Your task to perform on an android device: What's on my calendar tomorrow? Image 0: 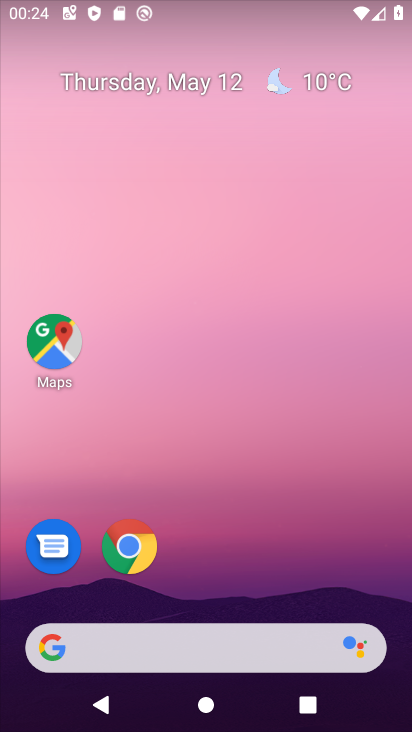
Step 0: drag from (162, 574) to (197, 196)
Your task to perform on an android device: What's on my calendar tomorrow? Image 1: 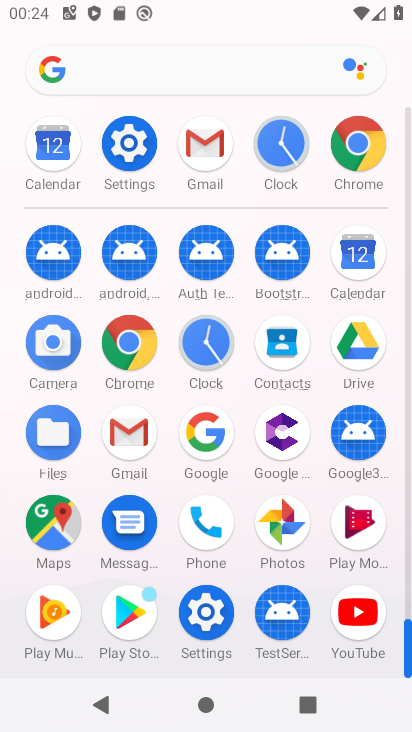
Step 1: click (359, 261)
Your task to perform on an android device: What's on my calendar tomorrow? Image 2: 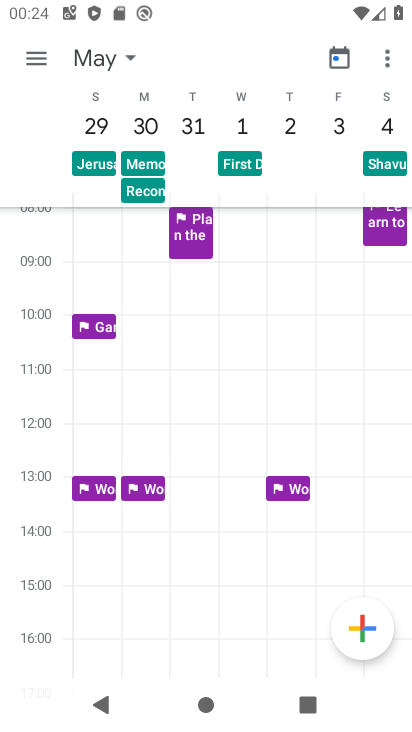
Step 2: click (125, 64)
Your task to perform on an android device: What's on my calendar tomorrow? Image 3: 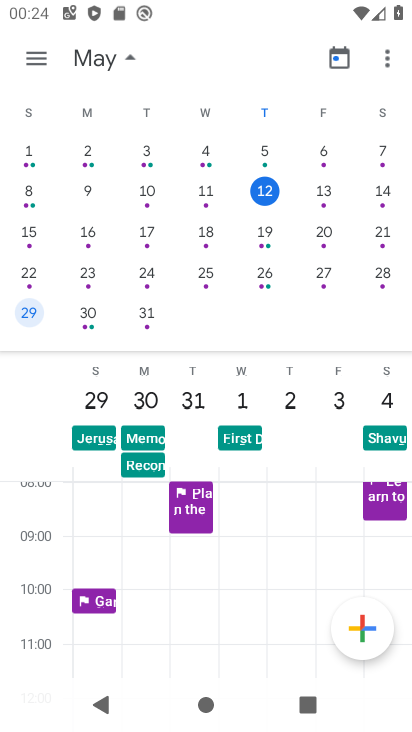
Step 3: drag from (390, 220) to (80, 207)
Your task to perform on an android device: What's on my calendar tomorrow? Image 4: 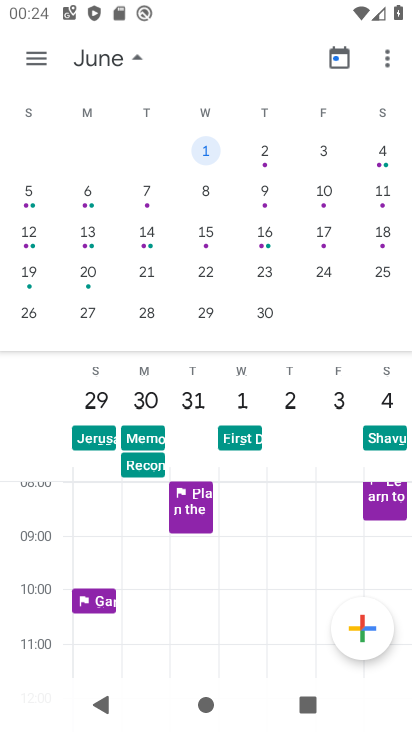
Step 4: drag from (55, 141) to (362, 184)
Your task to perform on an android device: What's on my calendar tomorrow? Image 5: 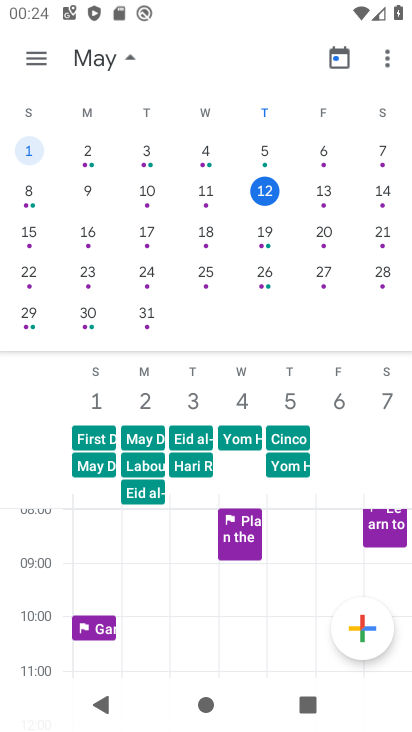
Step 5: click (315, 201)
Your task to perform on an android device: What's on my calendar tomorrow? Image 6: 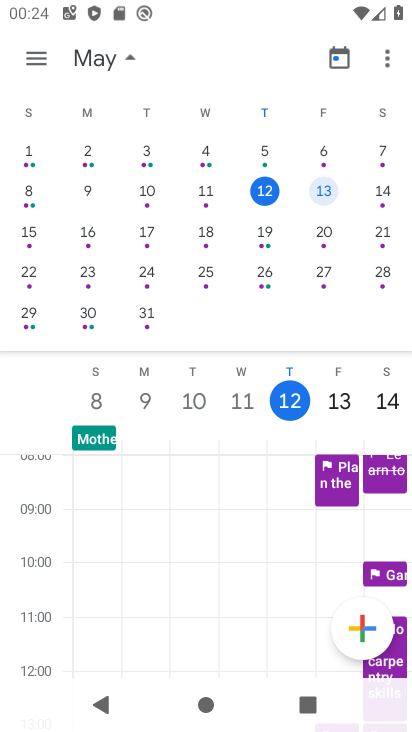
Step 6: task complete